Your task to perform on an android device: see tabs open on other devices in the chrome app Image 0: 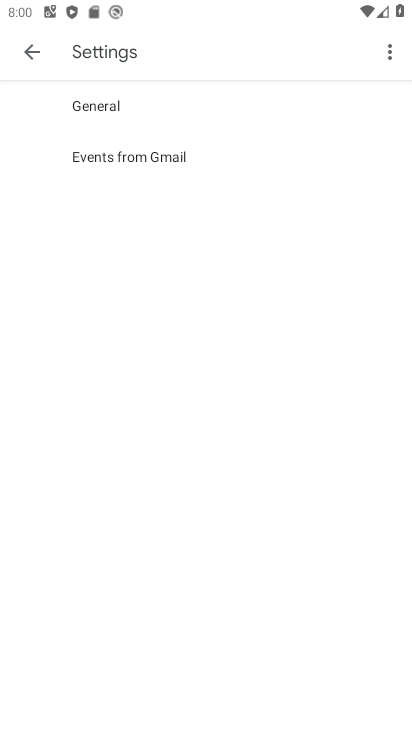
Step 0: press home button
Your task to perform on an android device: see tabs open on other devices in the chrome app Image 1: 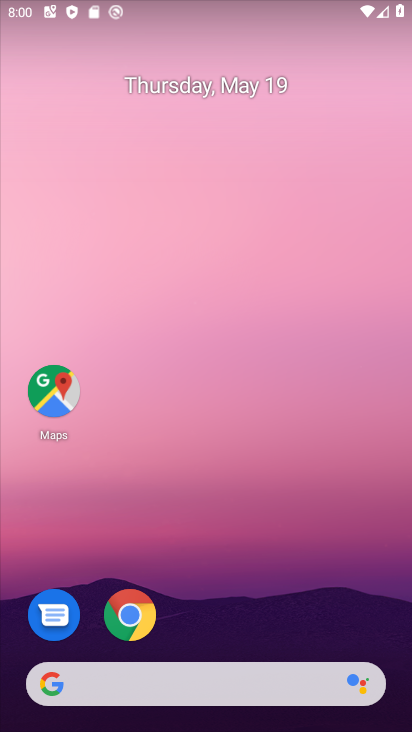
Step 1: click (133, 614)
Your task to perform on an android device: see tabs open on other devices in the chrome app Image 2: 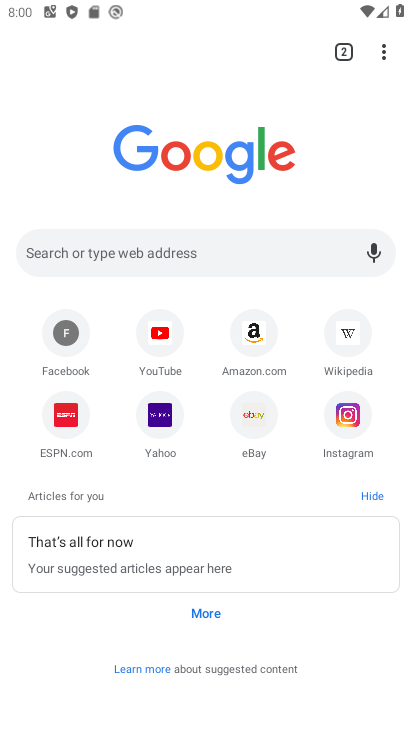
Step 2: click (343, 50)
Your task to perform on an android device: see tabs open on other devices in the chrome app Image 3: 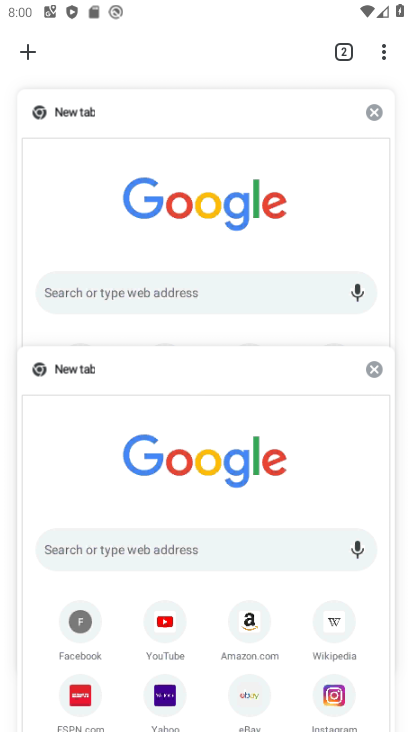
Step 3: task complete